Your task to perform on an android device: move a message to another label in the gmail app Image 0: 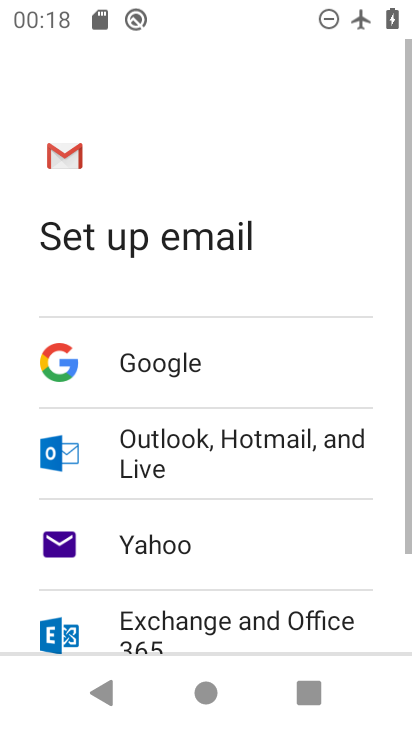
Step 0: press home button
Your task to perform on an android device: move a message to another label in the gmail app Image 1: 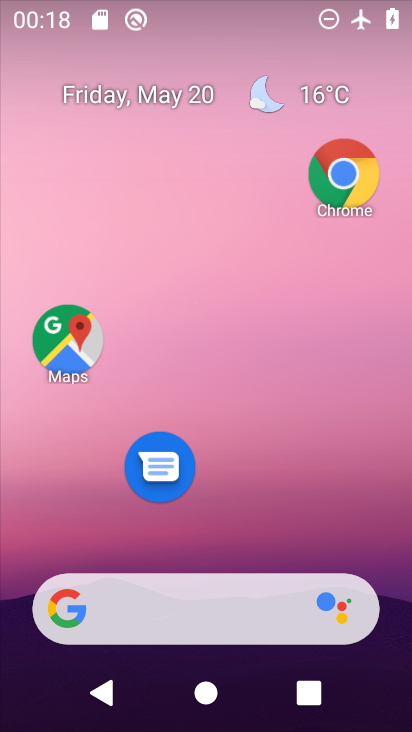
Step 1: drag from (229, 532) to (247, 216)
Your task to perform on an android device: move a message to another label in the gmail app Image 2: 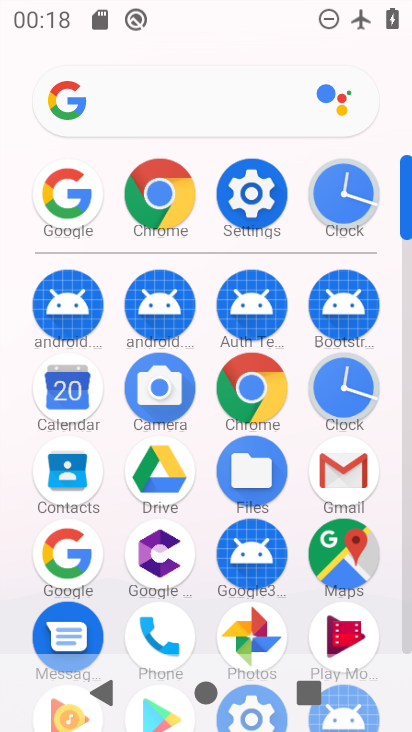
Step 2: click (344, 454)
Your task to perform on an android device: move a message to another label in the gmail app Image 3: 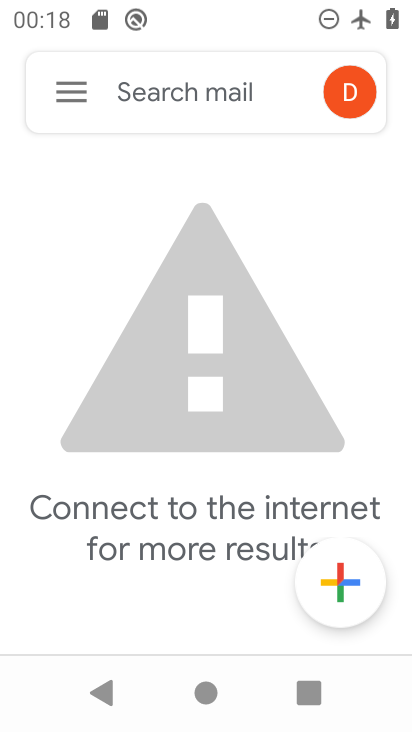
Step 3: click (54, 89)
Your task to perform on an android device: move a message to another label in the gmail app Image 4: 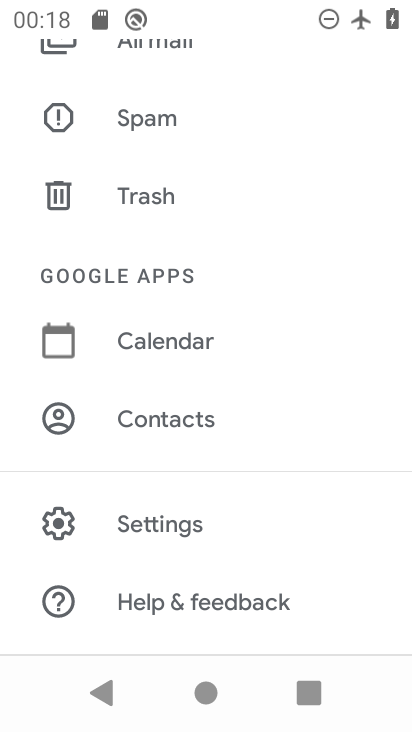
Step 4: drag from (237, 139) to (235, 415)
Your task to perform on an android device: move a message to another label in the gmail app Image 5: 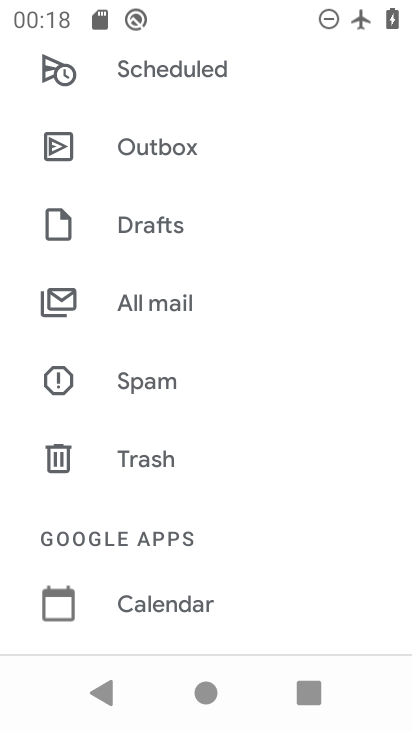
Step 5: click (186, 309)
Your task to perform on an android device: move a message to another label in the gmail app Image 6: 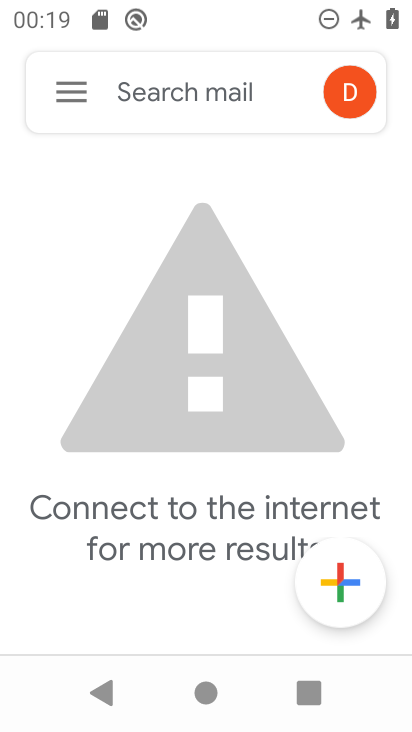
Step 6: click (73, 98)
Your task to perform on an android device: move a message to another label in the gmail app Image 7: 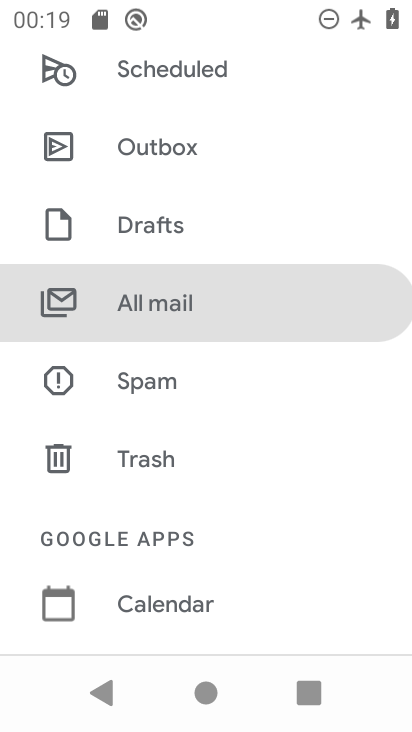
Step 7: task complete